Your task to perform on an android device: Show me the alarms in the clock app Image 0: 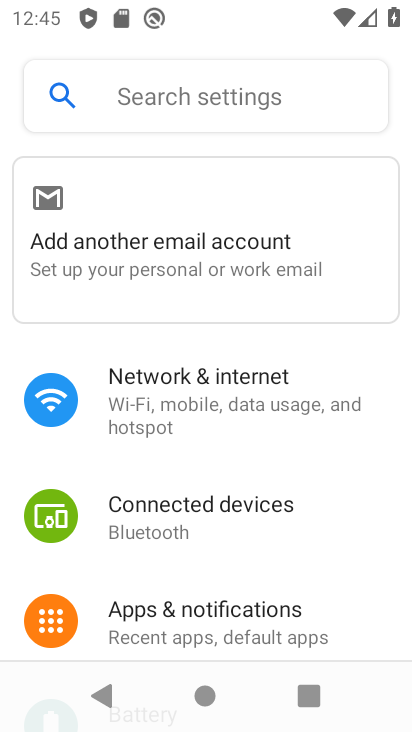
Step 0: press back button
Your task to perform on an android device: Show me the alarms in the clock app Image 1: 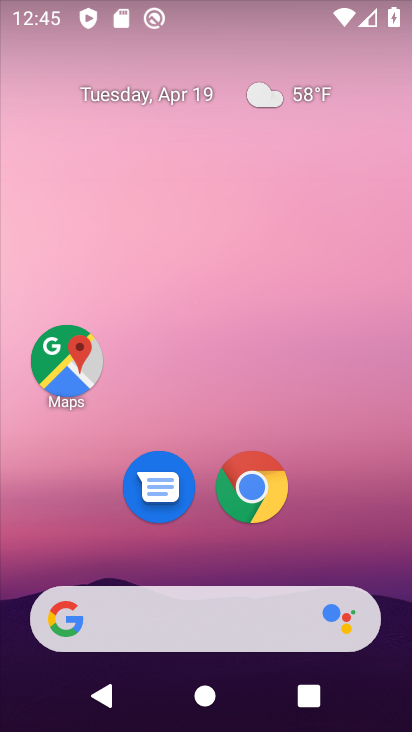
Step 1: drag from (207, 719) to (175, 65)
Your task to perform on an android device: Show me the alarms in the clock app Image 2: 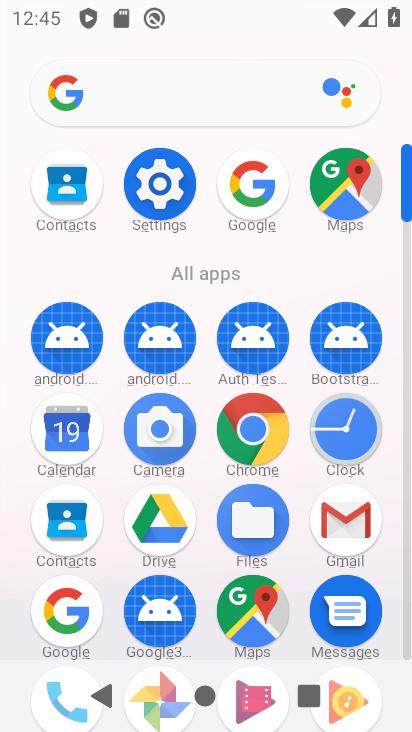
Step 2: click (341, 428)
Your task to perform on an android device: Show me the alarms in the clock app Image 3: 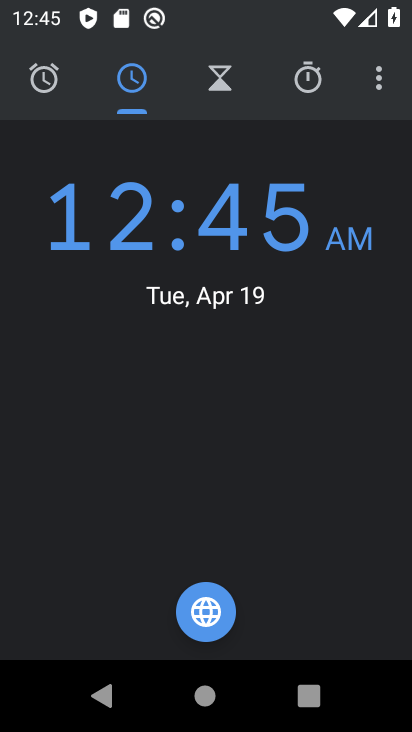
Step 3: click (57, 78)
Your task to perform on an android device: Show me the alarms in the clock app Image 4: 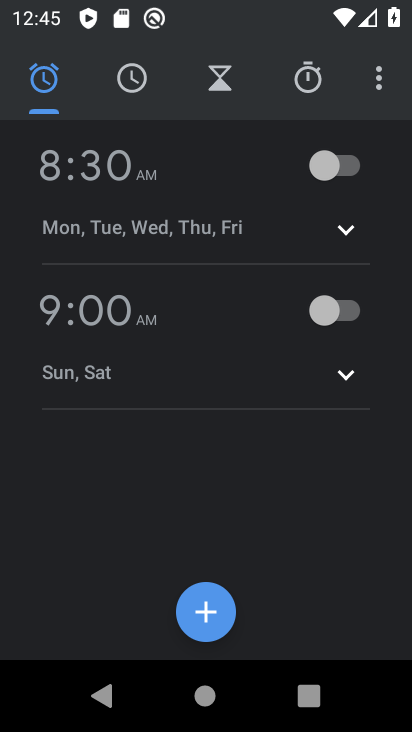
Step 4: task complete